Your task to perform on an android device: Open Google Image 0: 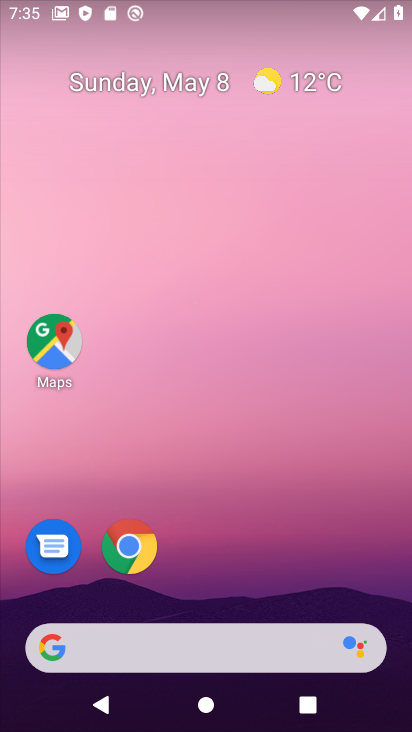
Step 0: click (46, 648)
Your task to perform on an android device: Open Google Image 1: 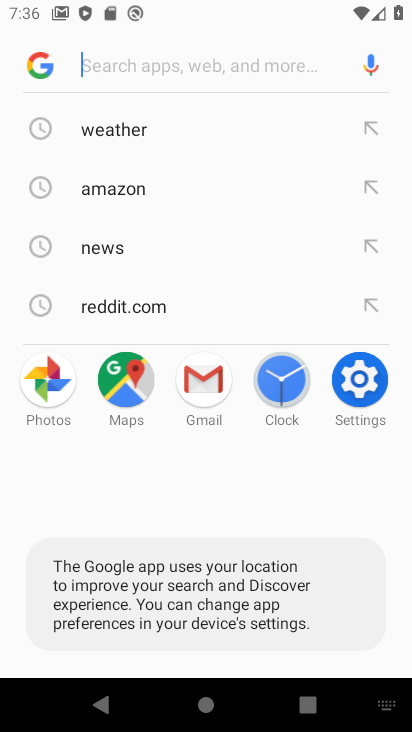
Step 1: click (39, 62)
Your task to perform on an android device: Open Google Image 2: 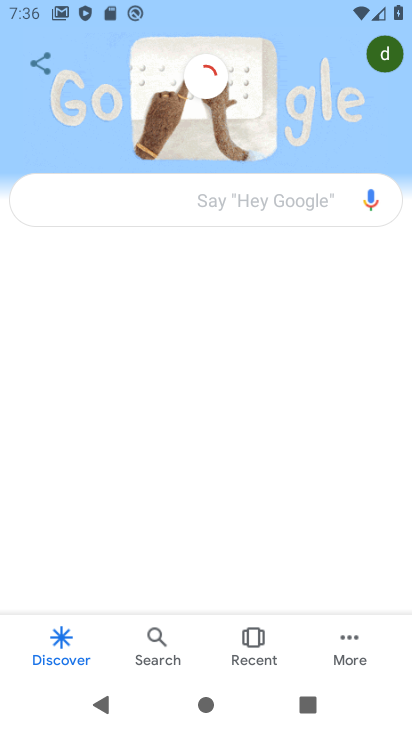
Step 2: task complete